Your task to perform on an android device: Open location settings Image 0: 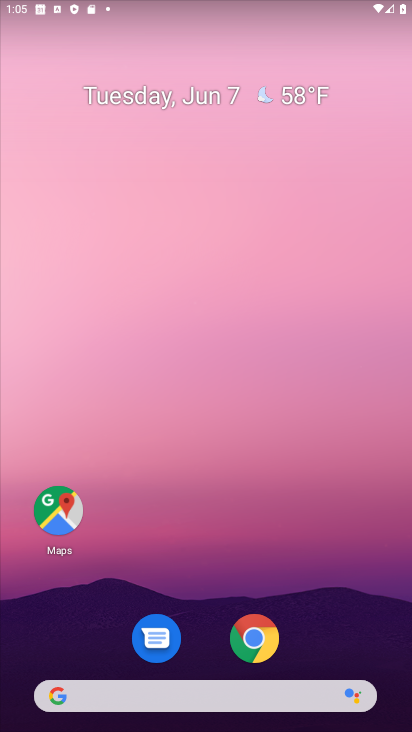
Step 0: drag from (225, 538) to (289, 227)
Your task to perform on an android device: Open location settings Image 1: 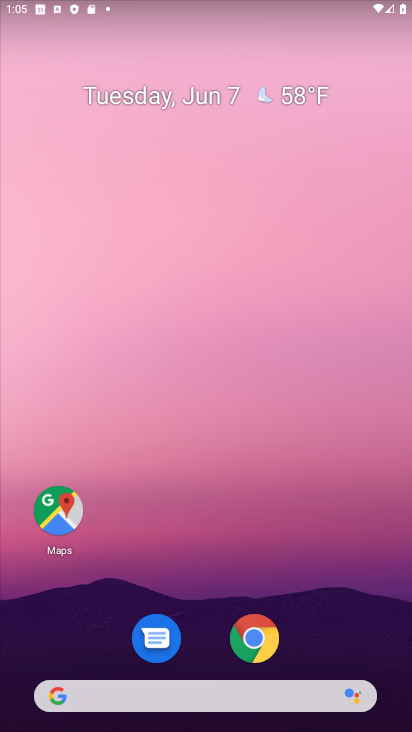
Step 1: drag from (206, 674) to (272, 212)
Your task to perform on an android device: Open location settings Image 2: 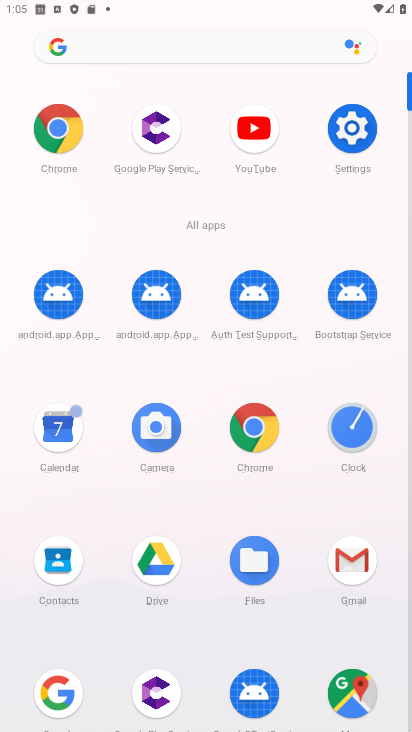
Step 2: click (352, 133)
Your task to perform on an android device: Open location settings Image 3: 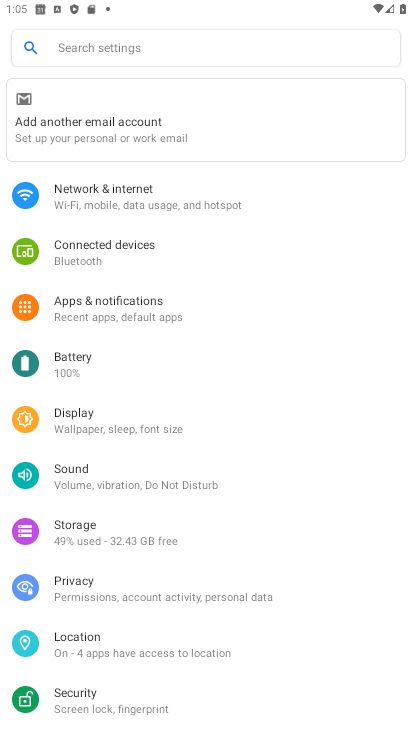
Step 3: click (103, 656)
Your task to perform on an android device: Open location settings Image 4: 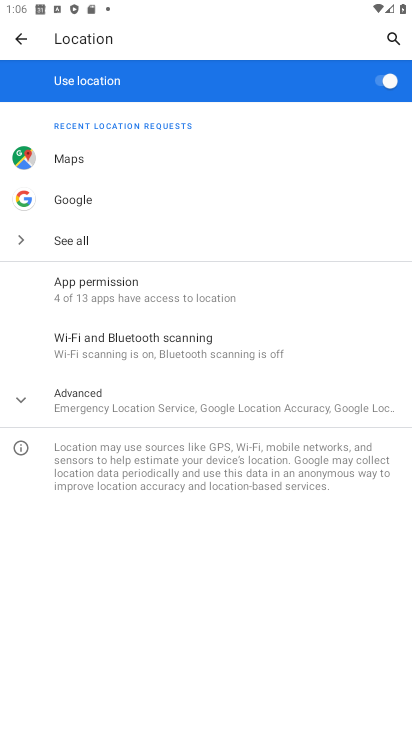
Step 4: task complete